Your task to perform on an android device: Toggle the flashlight Image 0: 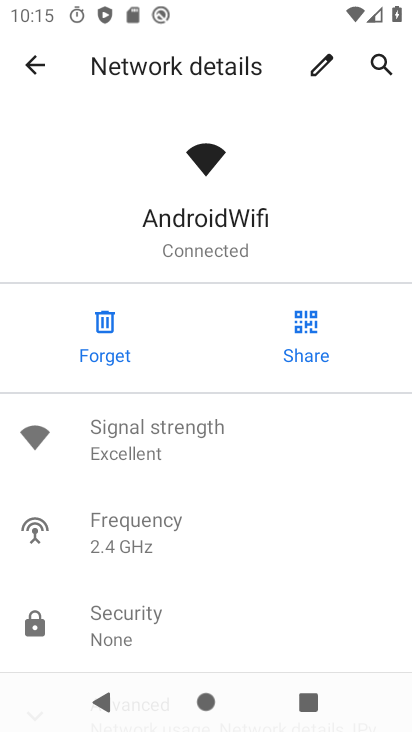
Step 0: click (24, 51)
Your task to perform on an android device: Toggle the flashlight Image 1: 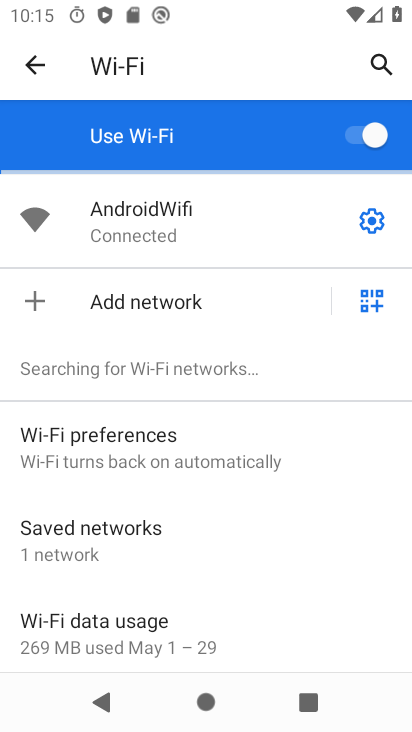
Step 1: click (37, 76)
Your task to perform on an android device: Toggle the flashlight Image 2: 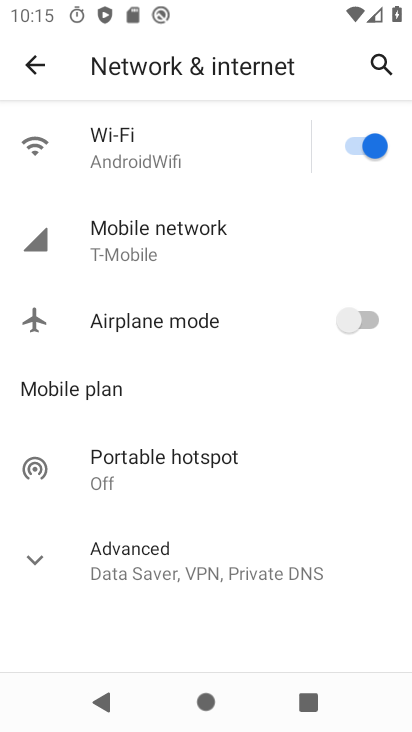
Step 2: click (37, 76)
Your task to perform on an android device: Toggle the flashlight Image 3: 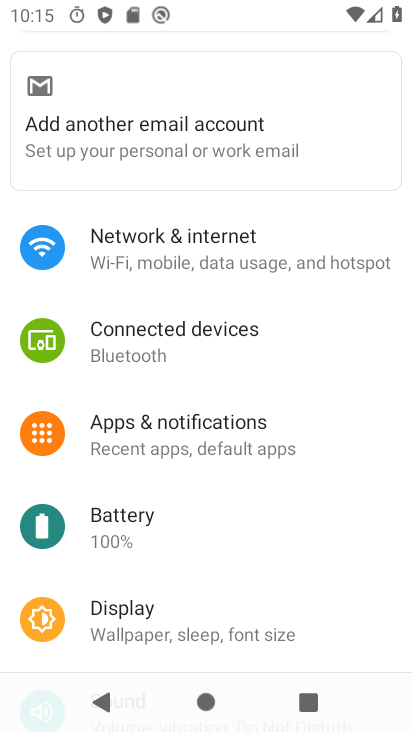
Step 3: click (189, 642)
Your task to perform on an android device: Toggle the flashlight Image 4: 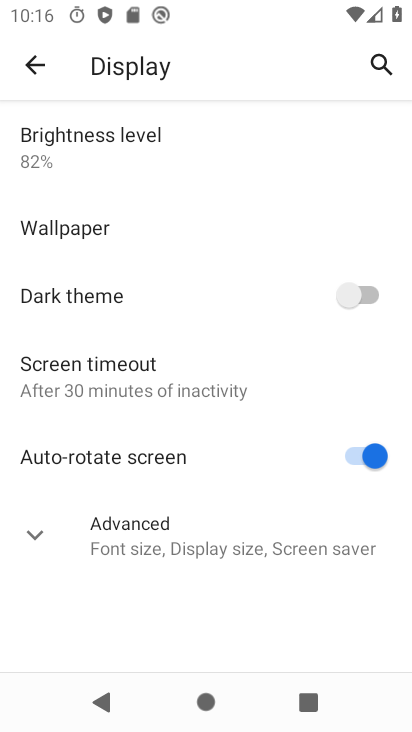
Step 4: click (75, 350)
Your task to perform on an android device: Toggle the flashlight Image 5: 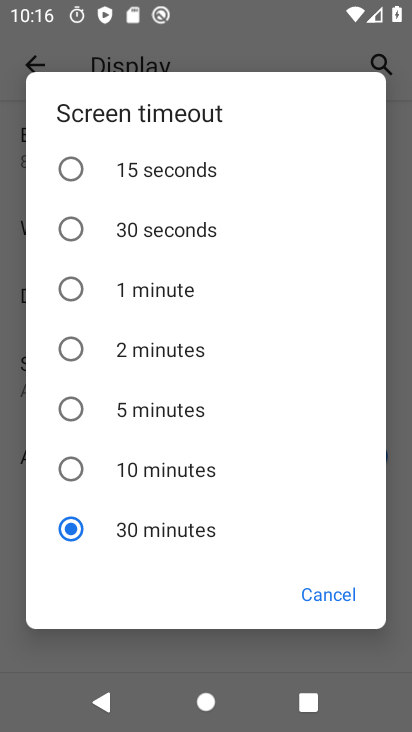
Step 5: task complete